Your task to perform on an android device: change the clock display to show seconds Image 0: 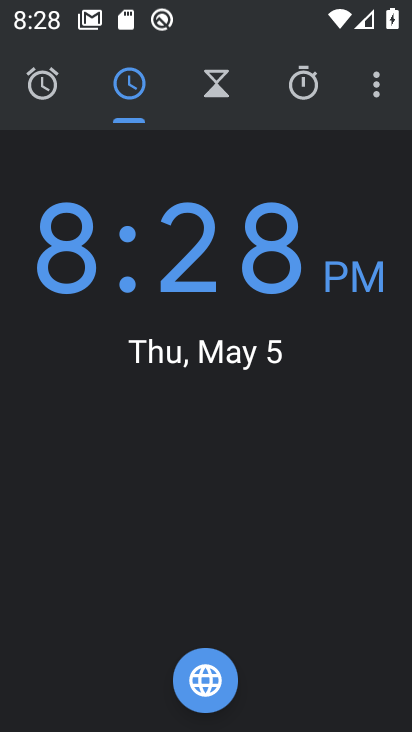
Step 0: click (375, 96)
Your task to perform on an android device: change the clock display to show seconds Image 1: 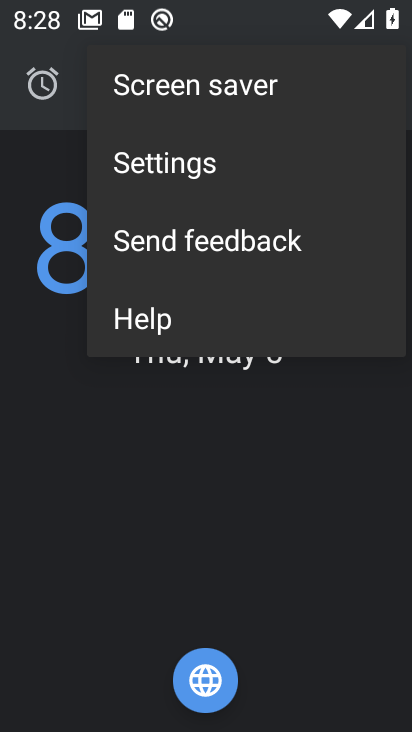
Step 1: click (230, 164)
Your task to perform on an android device: change the clock display to show seconds Image 2: 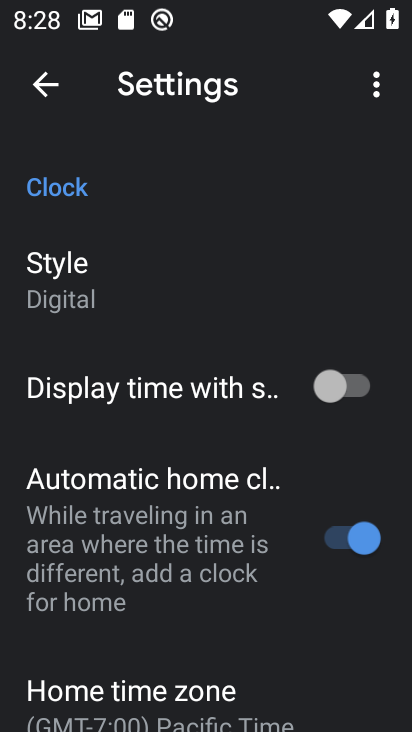
Step 2: click (334, 385)
Your task to perform on an android device: change the clock display to show seconds Image 3: 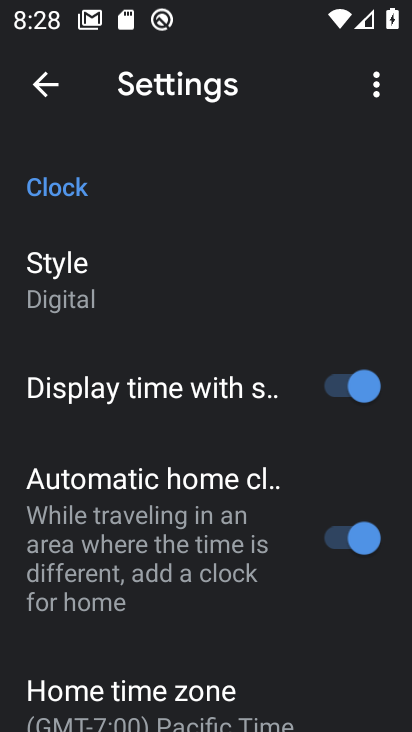
Step 3: task complete